Your task to perform on an android device: change notification settings in the gmail app Image 0: 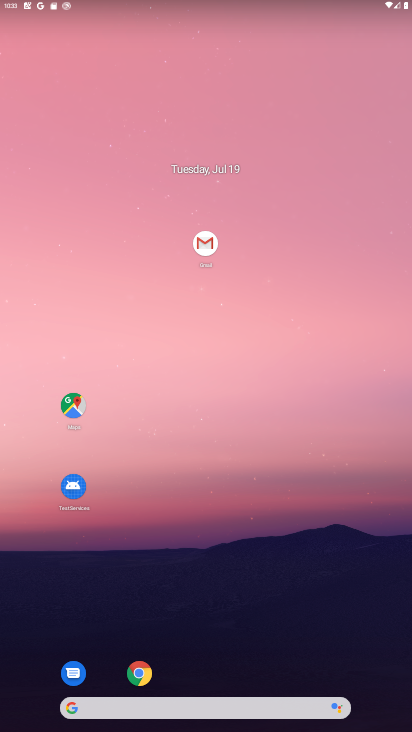
Step 0: drag from (186, 549) to (292, 248)
Your task to perform on an android device: change notification settings in the gmail app Image 1: 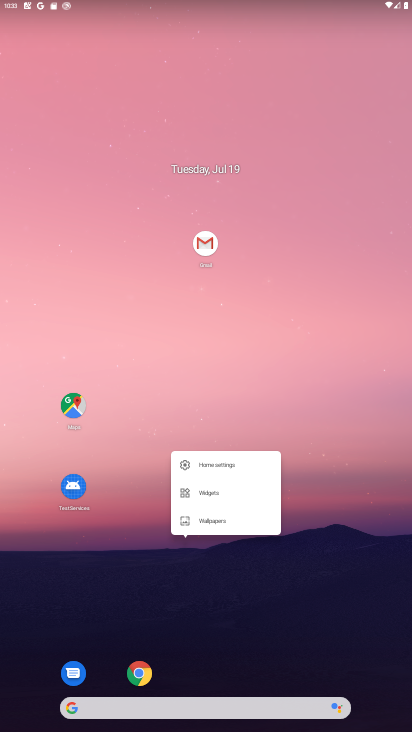
Step 1: click (288, 381)
Your task to perform on an android device: change notification settings in the gmail app Image 2: 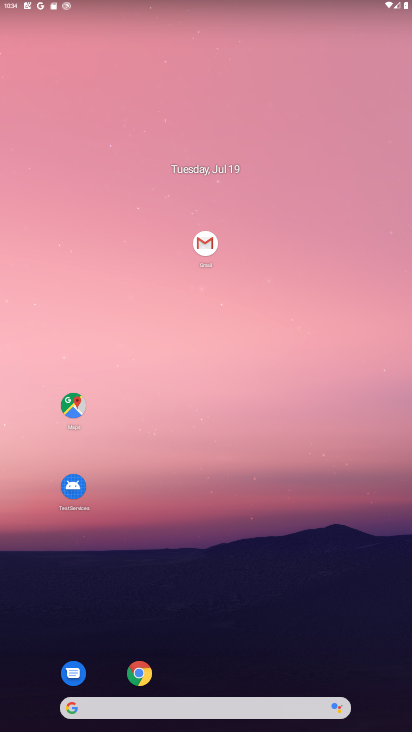
Step 2: drag from (244, 493) to (345, 102)
Your task to perform on an android device: change notification settings in the gmail app Image 3: 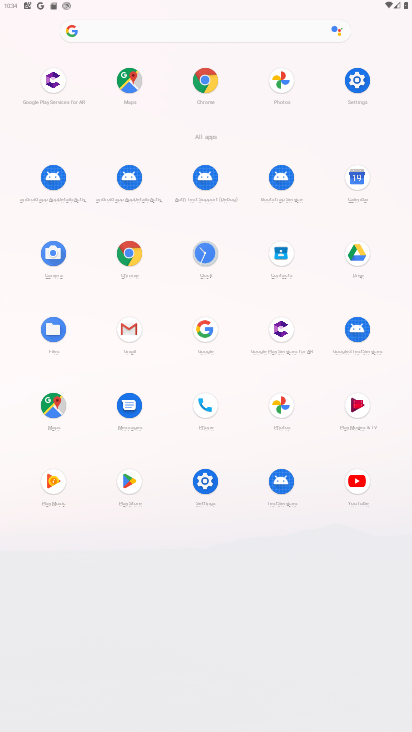
Step 3: click (131, 329)
Your task to perform on an android device: change notification settings in the gmail app Image 4: 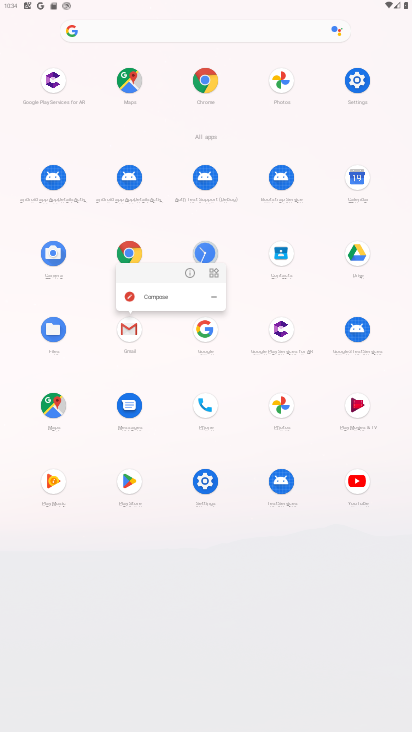
Step 4: click (192, 266)
Your task to perform on an android device: change notification settings in the gmail app Image 5: 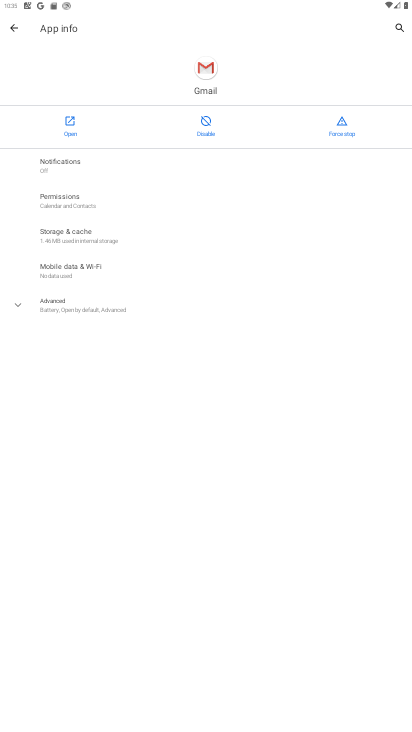
Step 5: click (87, 151)
Your task to perform on an android device: change notification settings in the gmail app Image 6: 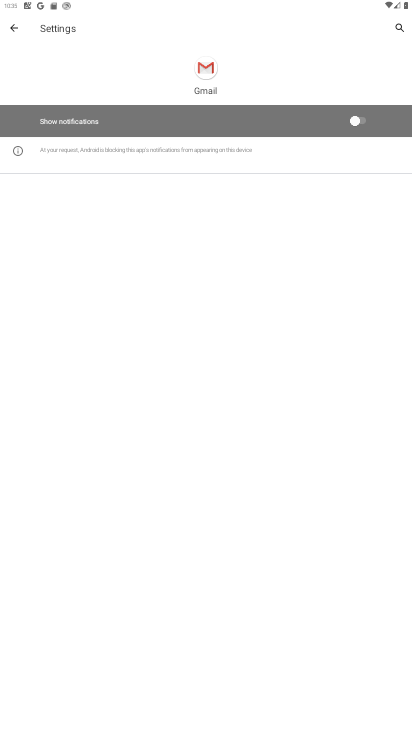
Step 6: click (361, 123)
Your task to perform on an android device: change notification settings in the gmail app Image 7: 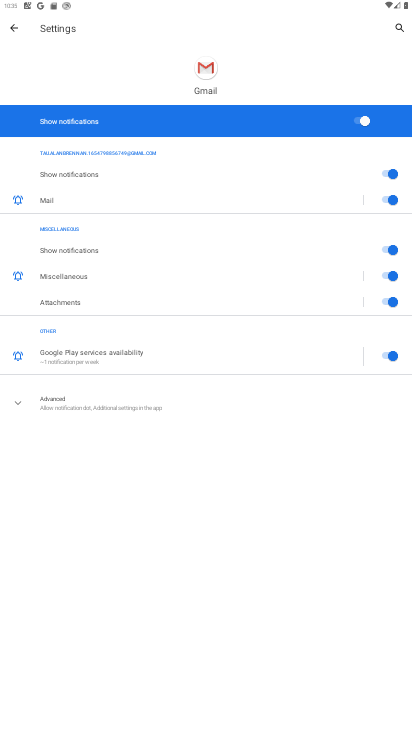
Step 7: task complete